Your task to perform on an android device: Go to display settings Image 0: 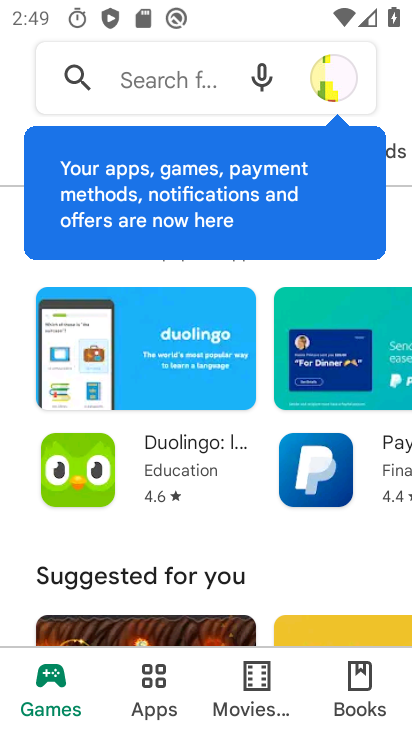
Step 0: press home button
Your task to perform on an android device: Go to display settings Image 1: 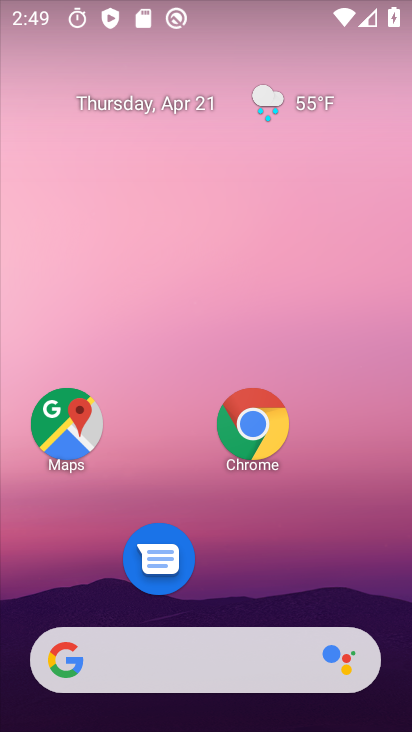
Step 1: drag from (264, 540) to (212, 55)
Your task to perform on an android device: Go to display settings Image 2: 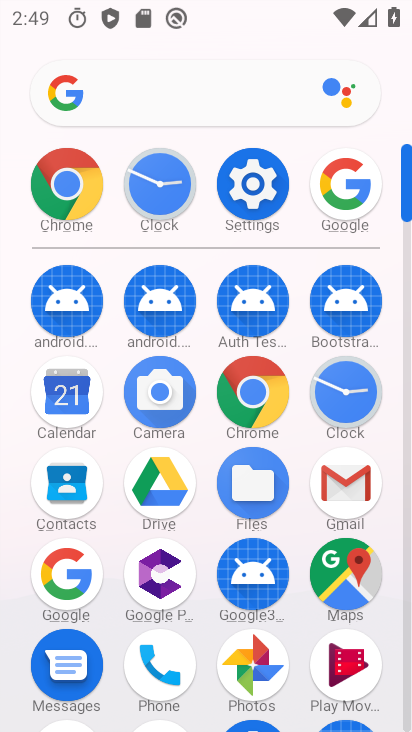
Step 2: click (254, 186)
Your task to perform on an android device: Go to display settings Image 3: 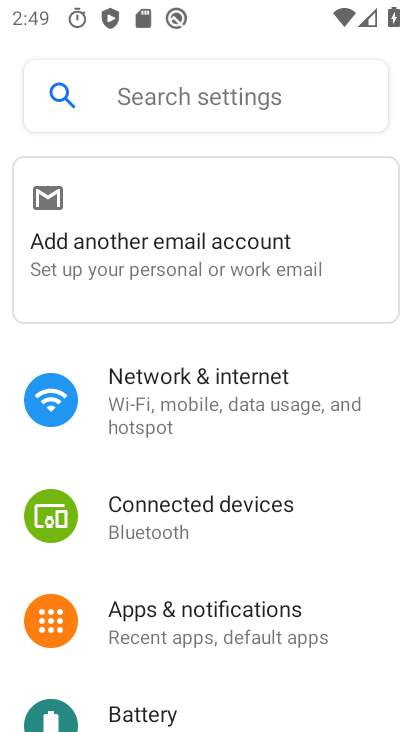
Step 3: drag from (247, 572) to (237, 216)
Your task to perform on an android device: Go to display settings Image 4: 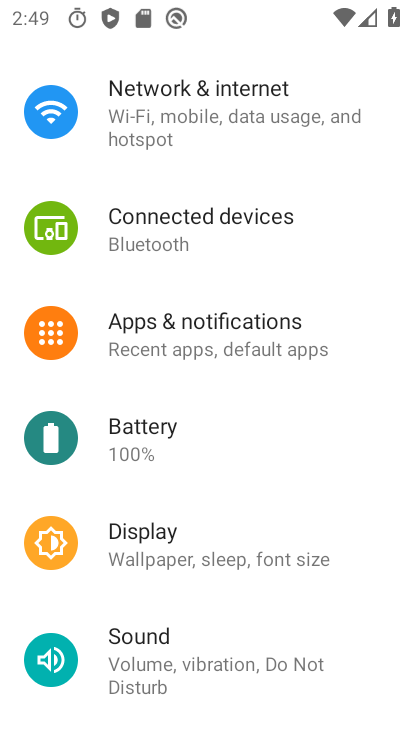
Step 4: click (133, 527)
Your task to perform on an android device: Go to display settings Image 5: 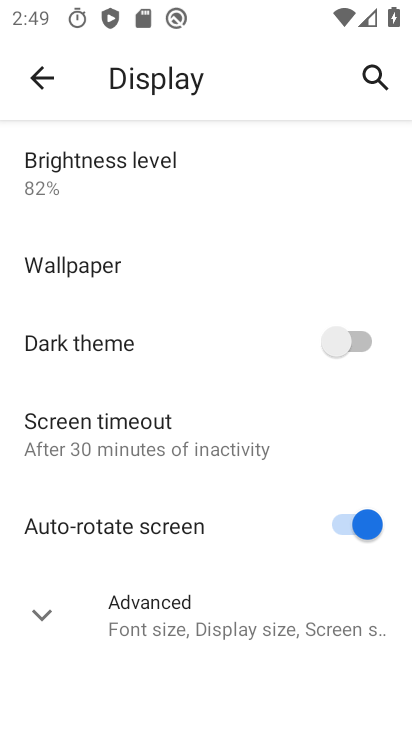
Step 5: task complete